Your task to perform on an android device: turn on the 24-hour format for clock Image 0: 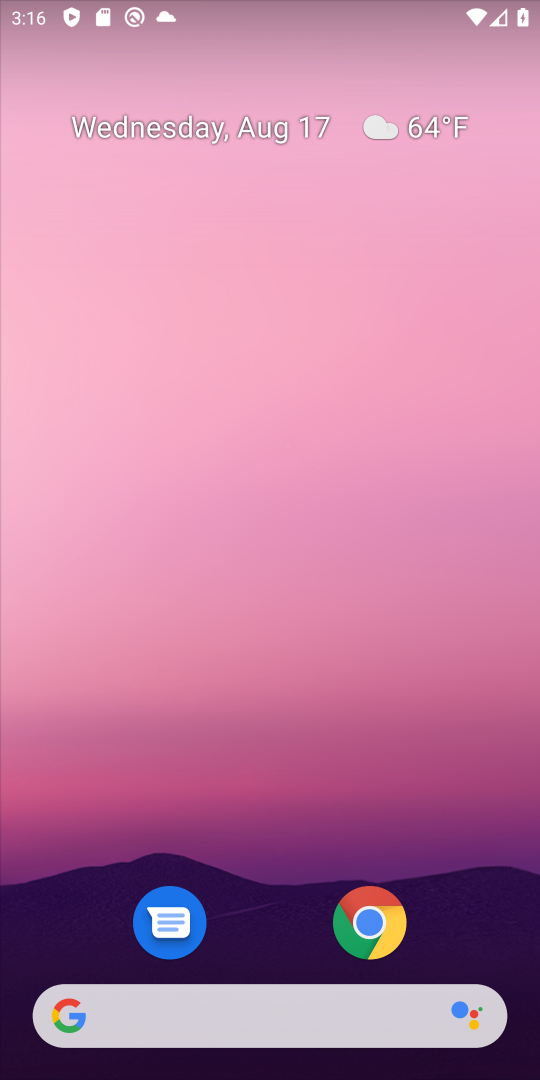
Step 0: drag from (49, 899) to (390, 28)
Your task to perform on an android device: turn on the 24-hour format for clock Image 1: 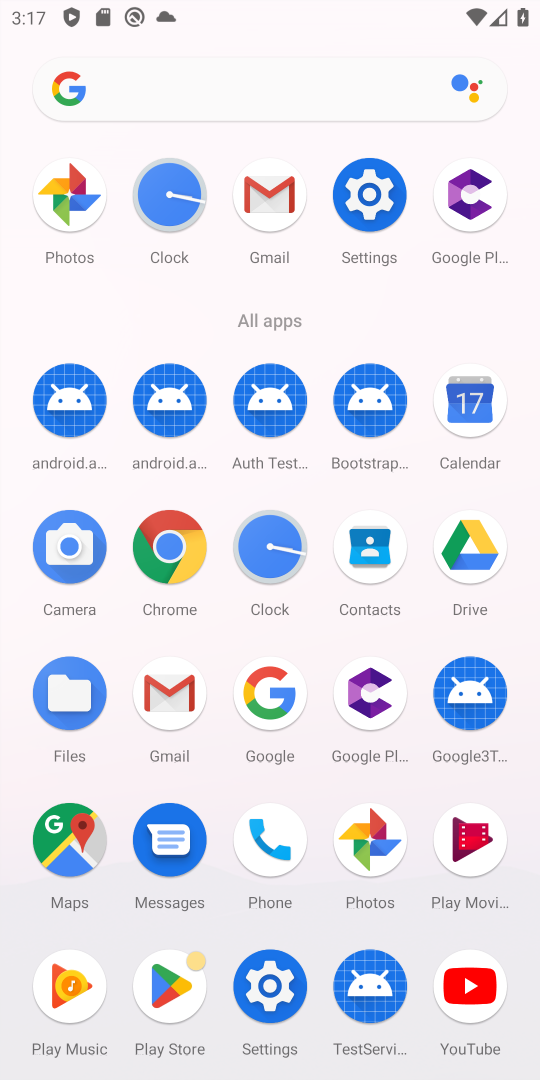
Step 1: click (185, 191)
Your task to perform on an android device: turn on the 24-hour format for clock Image 2: 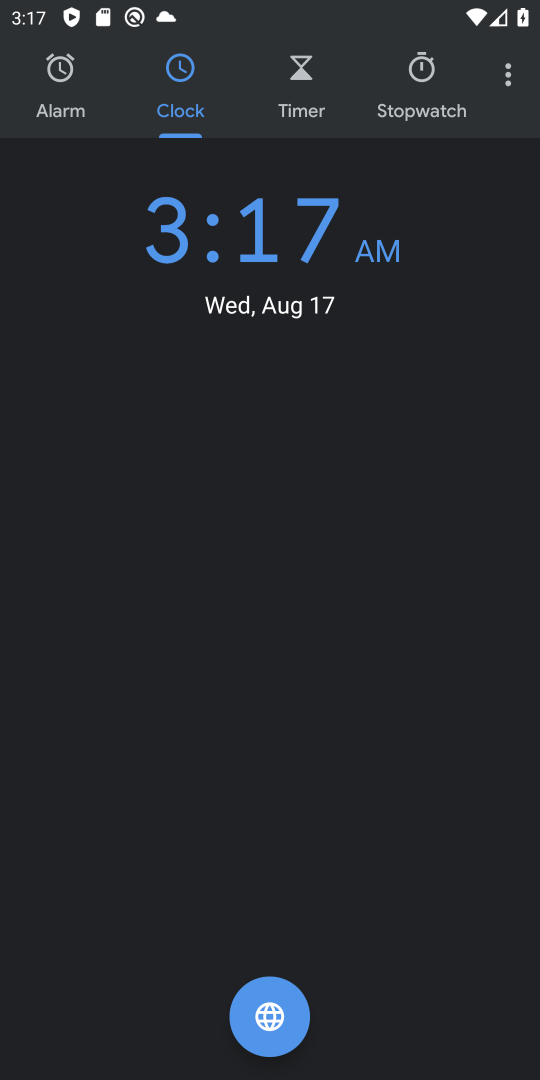
Step 2: click (507, 81)
Your task to perform on an android device: turn on the 24-hour format for clock Image 3: 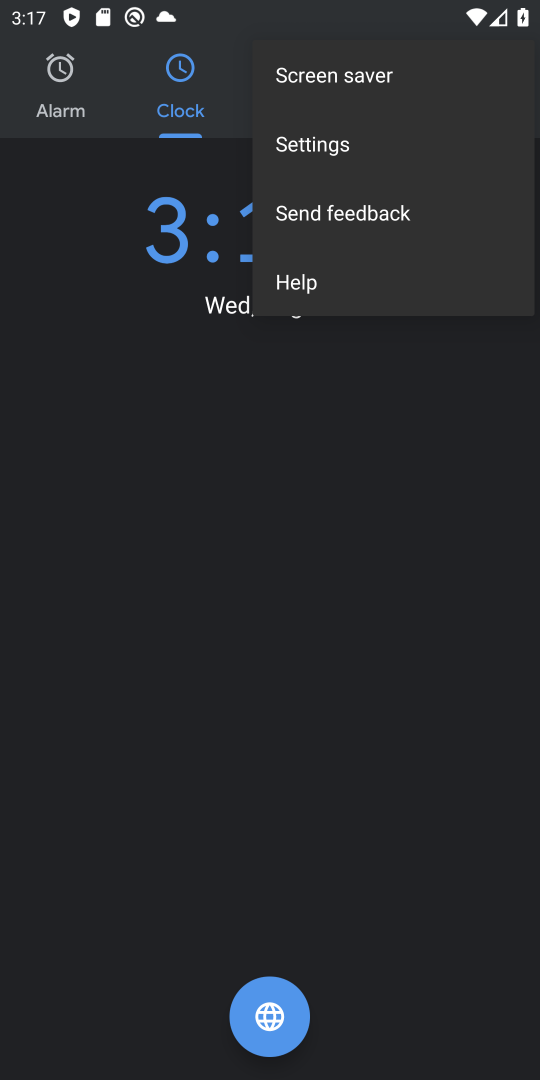
Step 3: click (410, 151)
Your task to perform on an android device: turn on the 24-hour format for clock Image 4: 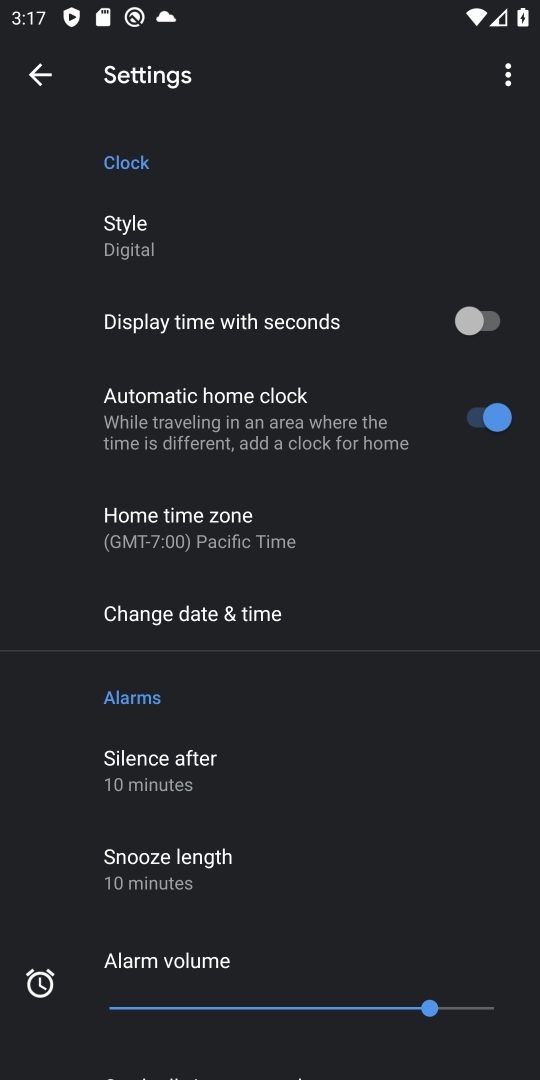
Step 4: drag from (3, 886) to (251, 277)
Your task to perform on an android device: turn on the 24-hour format for clock Image 5: 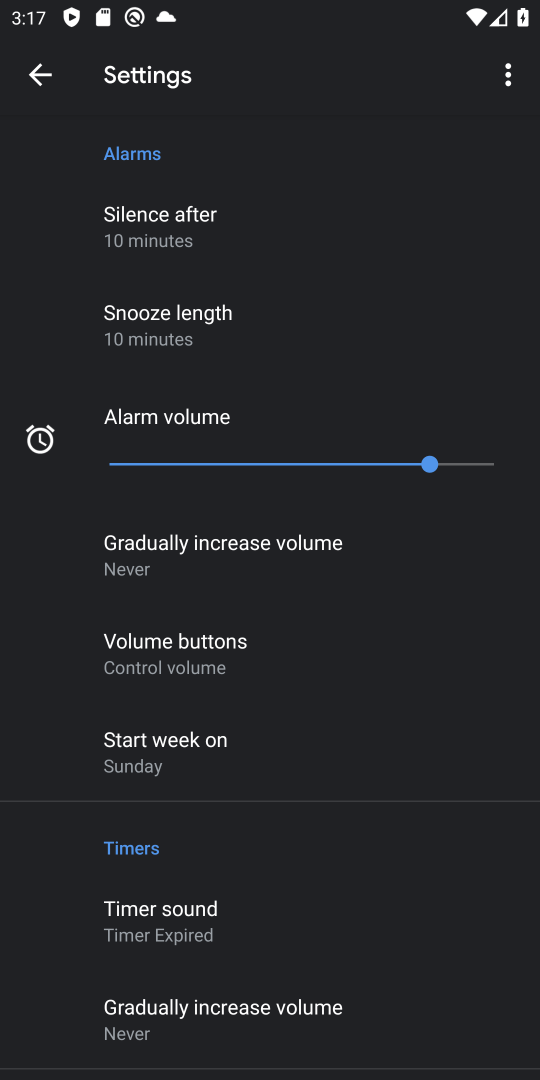
Step 5: drag from (1, 994) to (194, 425)
Your task to perform on an android device: turn on the 24-hour format for clock Image 6: 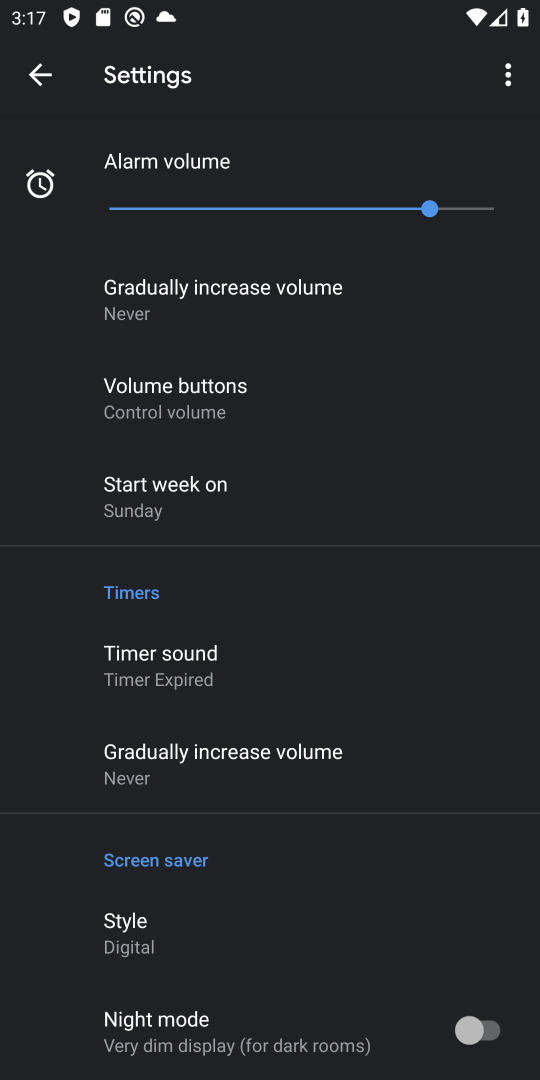
Step 6: drag from (151, 264) to (161, 768)
Your task to perform on an android device: turn on the 24-hour format for clock Image 7: 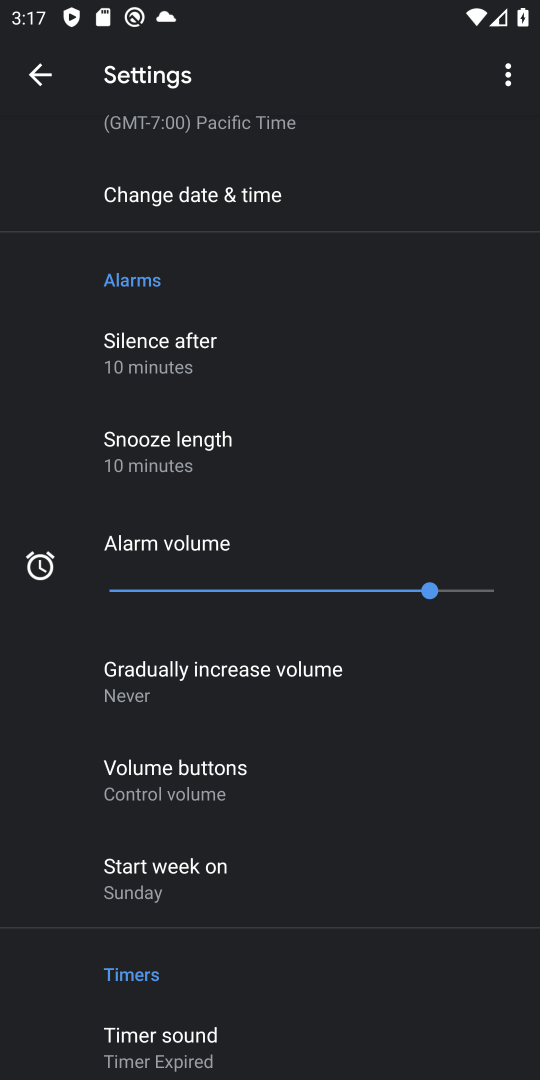
Step 7: drag from (183, 191) to (169, 686)
Your task to perform on an android device: turn on the 24-hour format for clock Image 8: 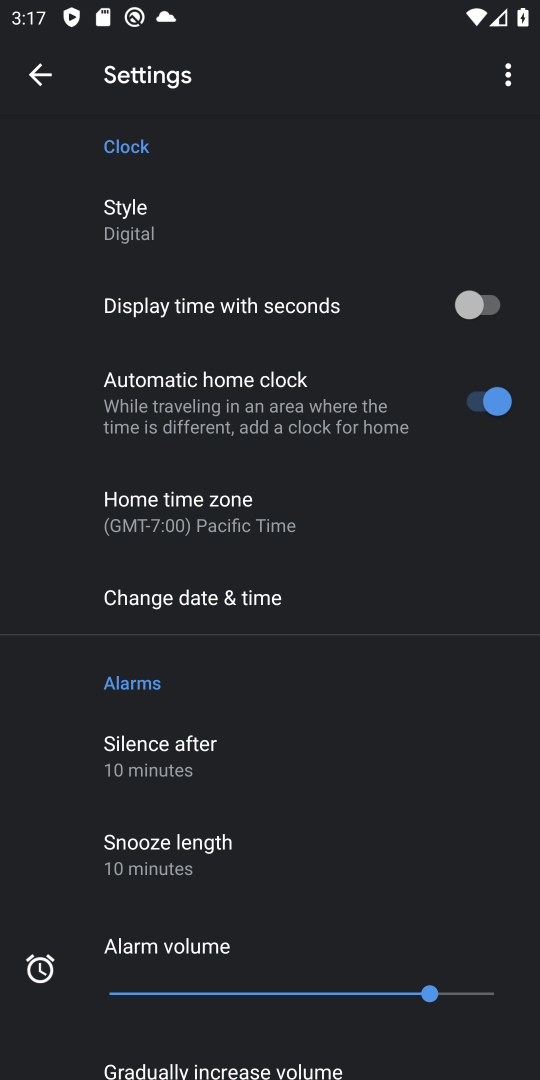
Step 8: click (179, 587)
Your task to perform on an android device: turn on the 24-hour format for clock Image 9: 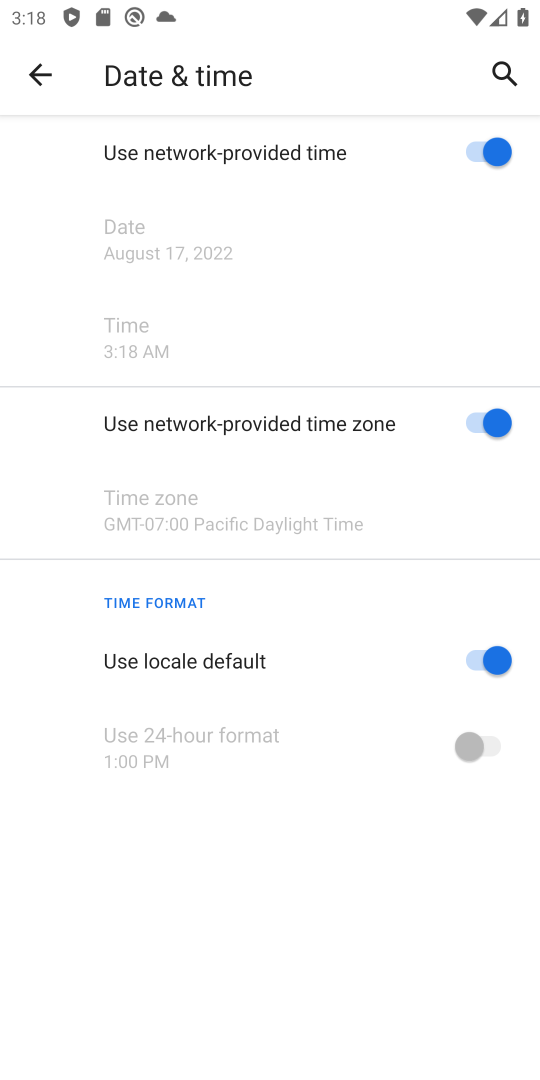
Step 9: click (505, 659)
Your task to perform on an android device: turn on the 24-hour format for clock Image 10: 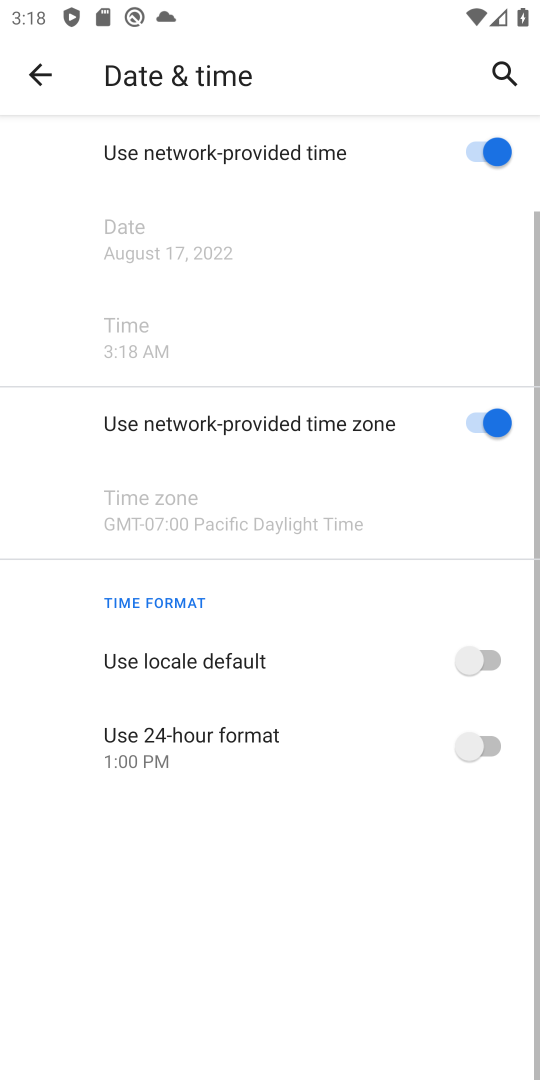
Step 10: click (468, 745)
Your task to perform on an android device: turn on the 24-hour format for clock Image 11: 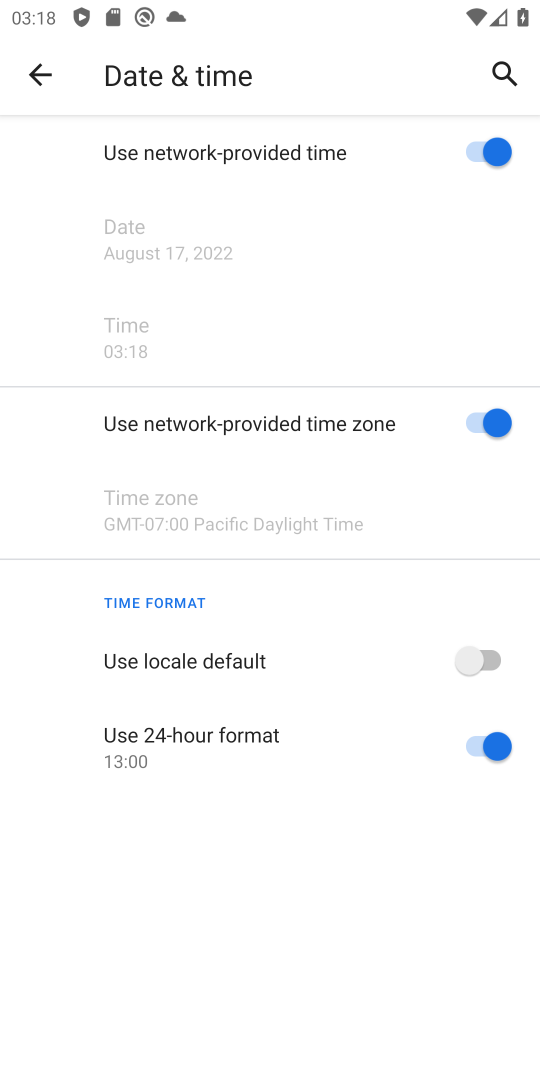
Step 11: task complete